Your task to perform on an android device: see sites visited before in the chrome app Image 0: 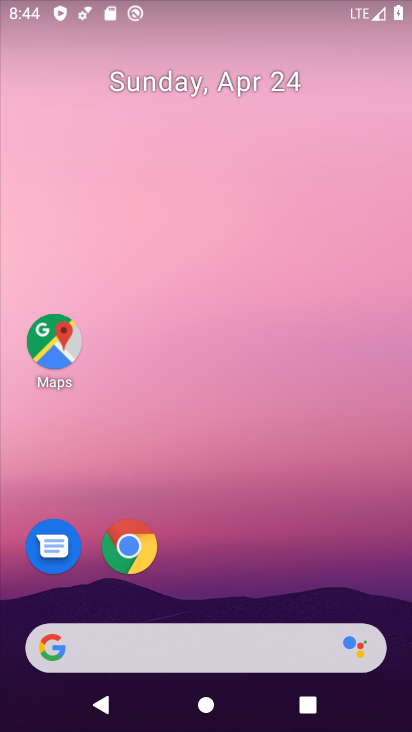
Step 0: click (121, 552)
Your task to perform on an android device: see sites visited before in the chrome app Image 1: 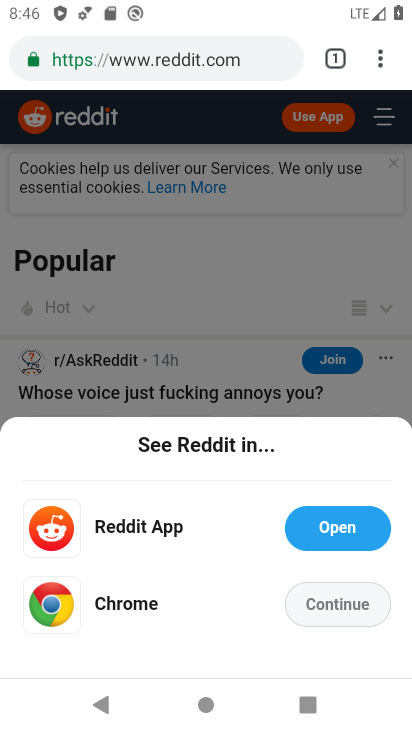
Step 1: click (381, 66)
Your task to perform on an android device: see sites visited before in the chrome app Image 2: 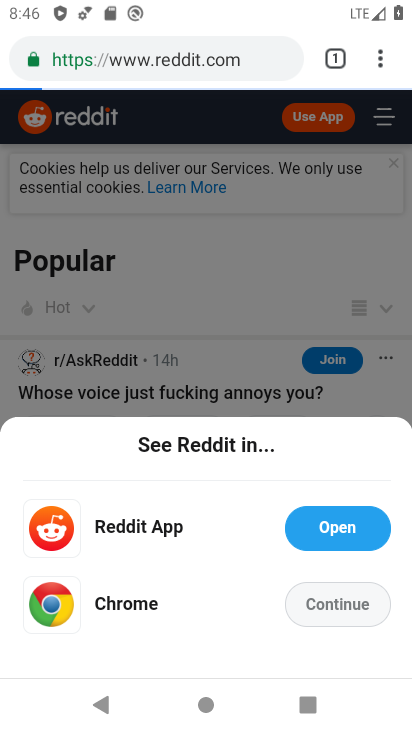
Step 2: click (377, 66)
Your task to perform on an android device: see sites visited before in the chrome app Image 3: 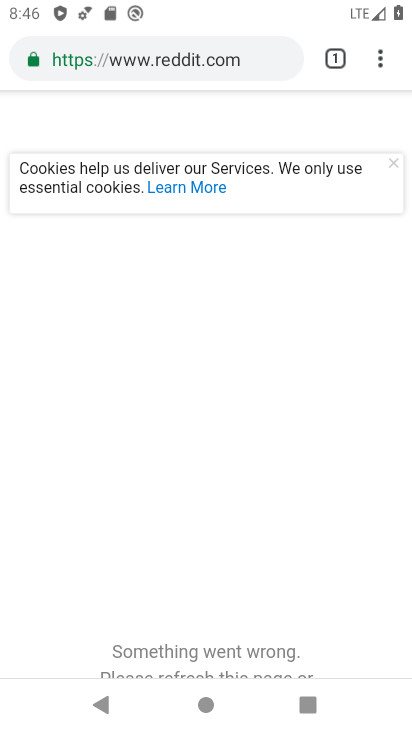
Step 3: click (390, 56)
Your task to perform on an android device: see sites visited before in the chrome app Image 4: 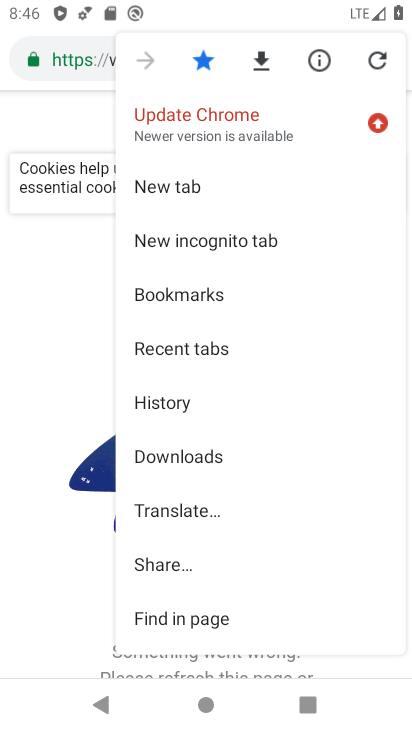
Step 4: click (243, 399)
Your task to perform on an android device: see sites visited before in the chrome app Image 5: 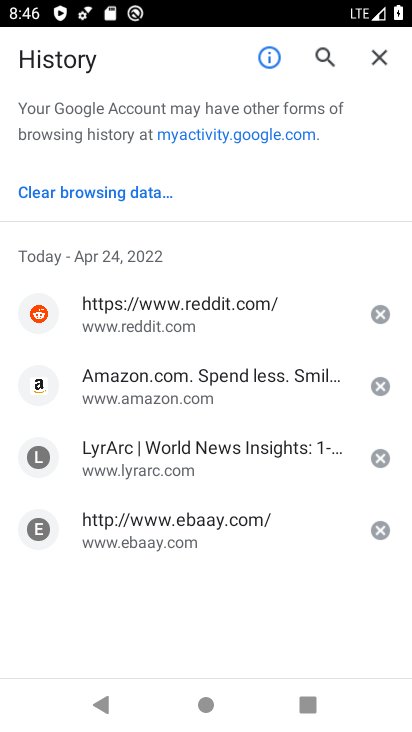
Step 5: task complete